Your task to perform on an android device: turn vacation reply on in the gmail app Image 0: 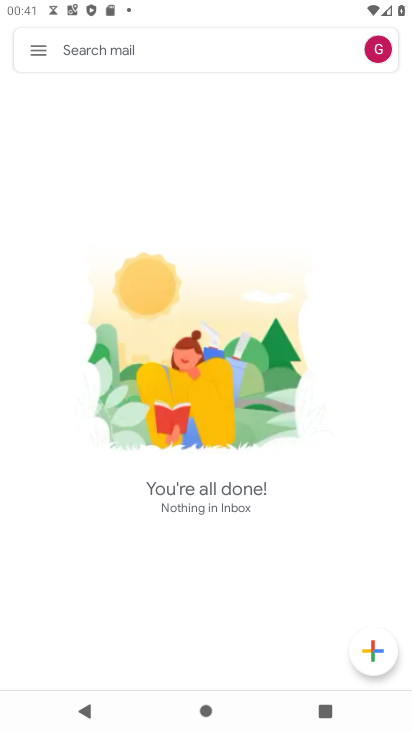
Step 0: click (41, 53)
Your task to perform on an android device: turn vacation reply on in the gmail app Image 1: 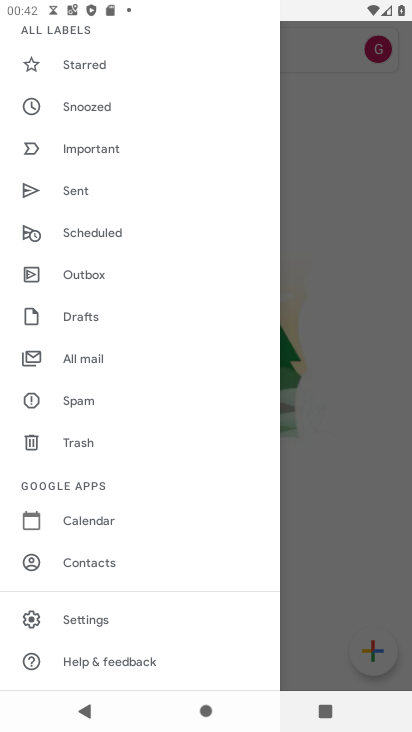
Step 1: click (85, 624)
Your task to perform on an android device: turn vacation reply on in the gmail app Image 2: 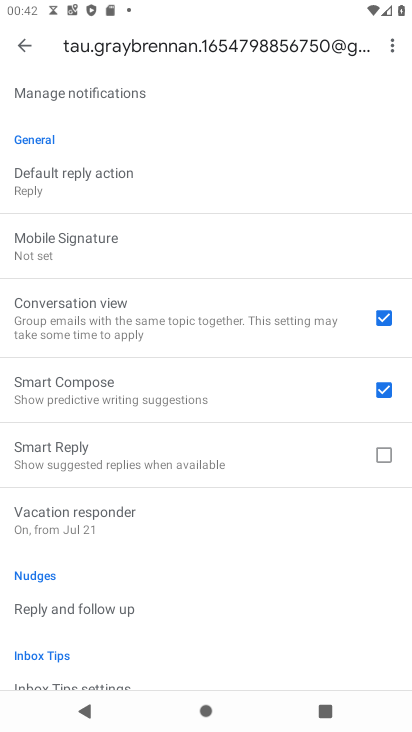
Step 2: click (91, 519)
Your task to perform on an android device: turn vacation reply on in the gmail app Image 3: 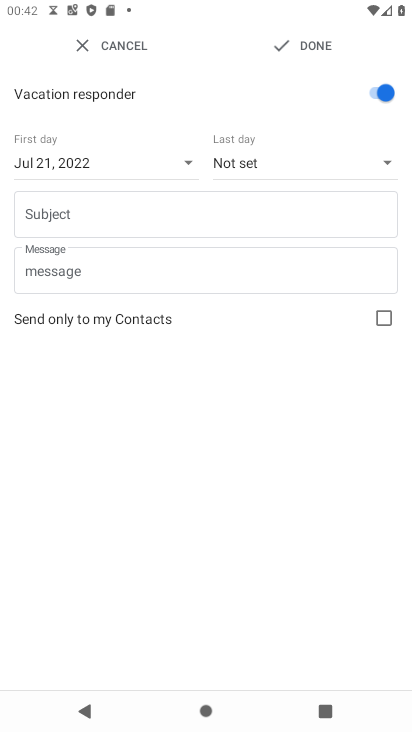
Step 3: task complete